Your task to perform on an android device: change timer sound Image 0: 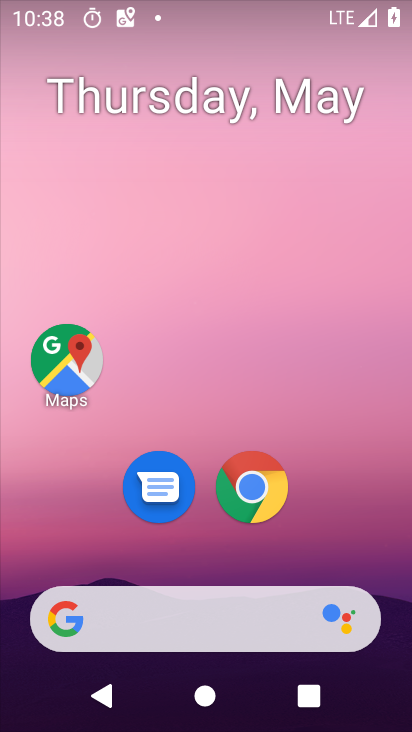
Step 0: drag from (200, 588) to (363, 93)
Your task to perform on an android device: change timer sound Image 1: 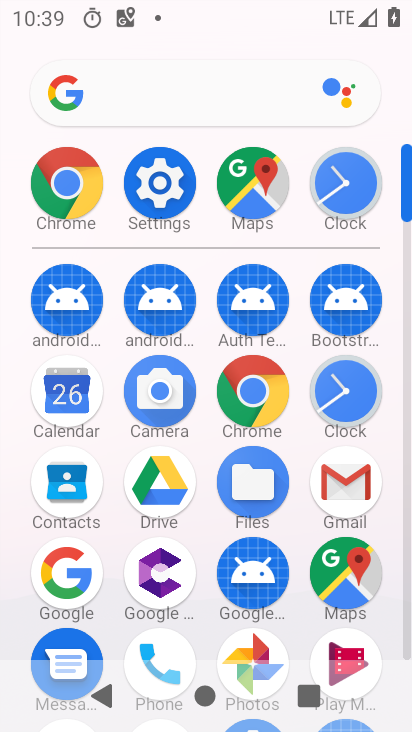
Step 1: click (354, 402)
Your task to perform on an android device: change timer sound Image 2: 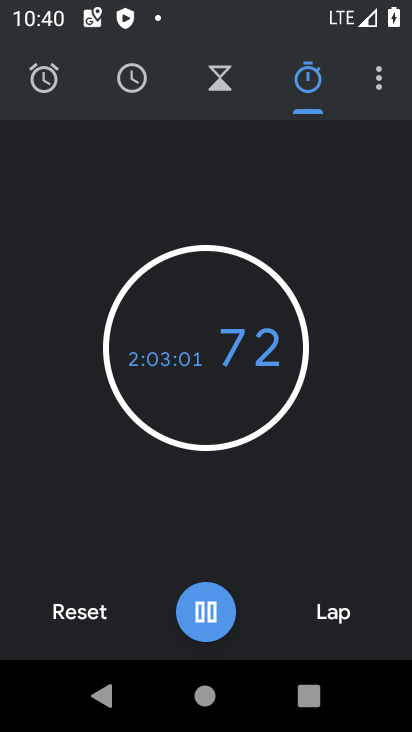
Step 2: click (380, 73)
Your task to perform on an android device: change timer sound Image 3: 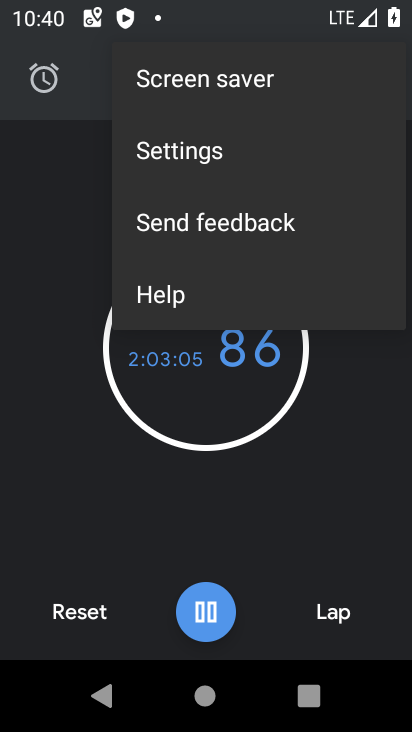
Step 3: click (180, 147)
Your task to perform on an android device: change timer sound Image 4: 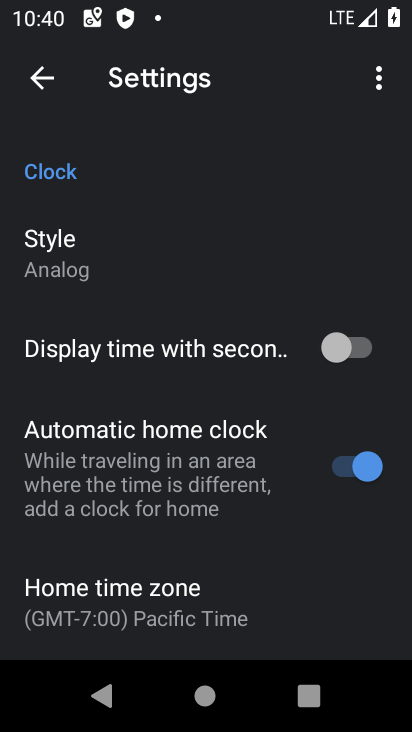
Step 4: task complete